Your task to perform on an android device: Open the calendar app, open the side menu, and click the "Day" option Image 0: 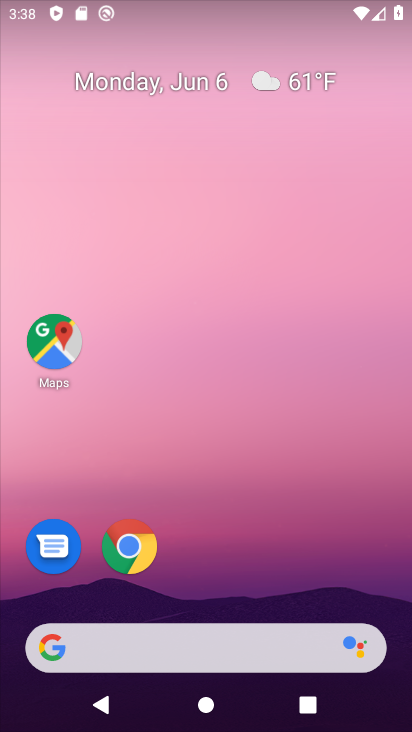
Step 0: drag from (228, 729) to (223, 102)
Your task to perform on an android device: Open the calendar app, open the side menu, and click the "Day" option Image 1: 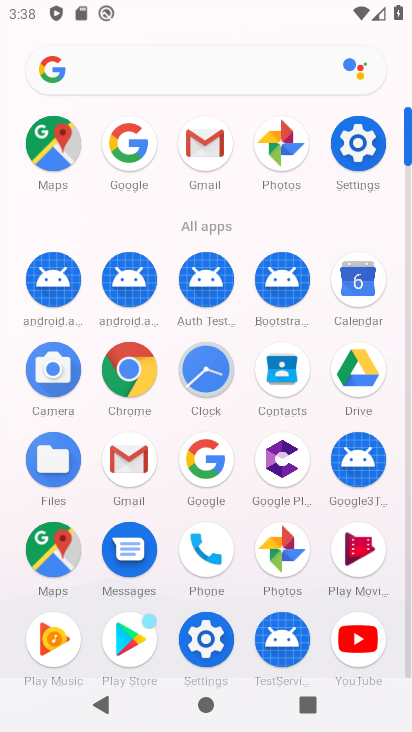
Step 1: click (358, 288)
Your task to perform on an android device: Open the calendar app, open the side menu, and click the "Day" option Image 2: 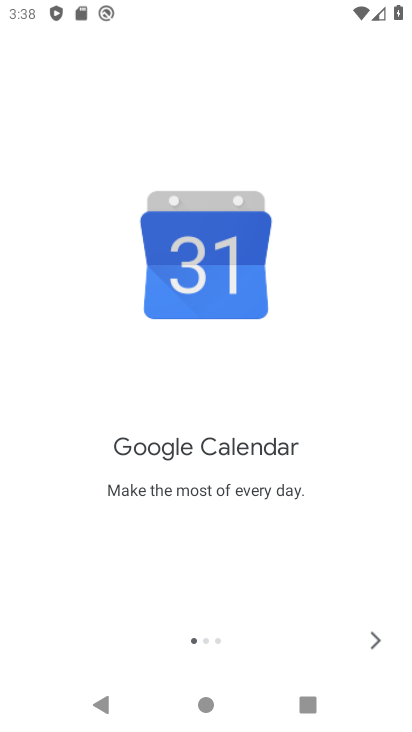
Step 2: click (379, 638)
Your task to perform on an android device: Open the calendar app, open the side menu, and click the "Day" option Image 3: 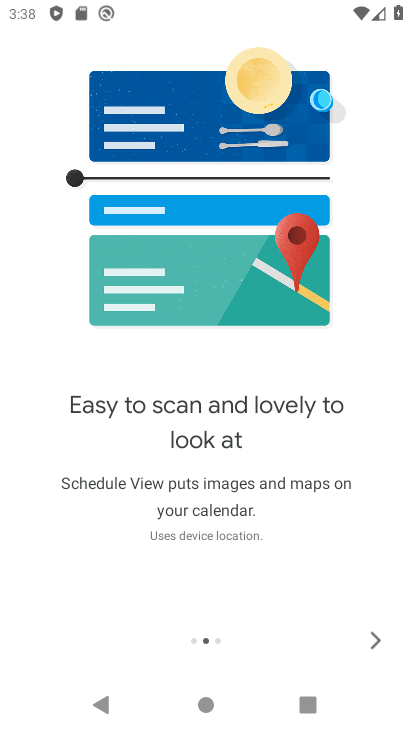
Step 3: click (379, 638)
Your task to perform on an android device: Open the calendar app, open the side menu, and click the "Day" option Image 4: 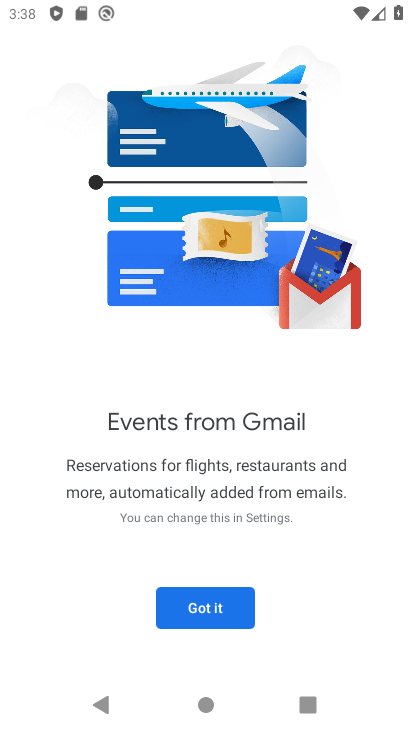
Step 4: click (218, 607)
Your task to perform on an android device: Open the calendar app, open the side menu, and click the "Day" option Image 5: 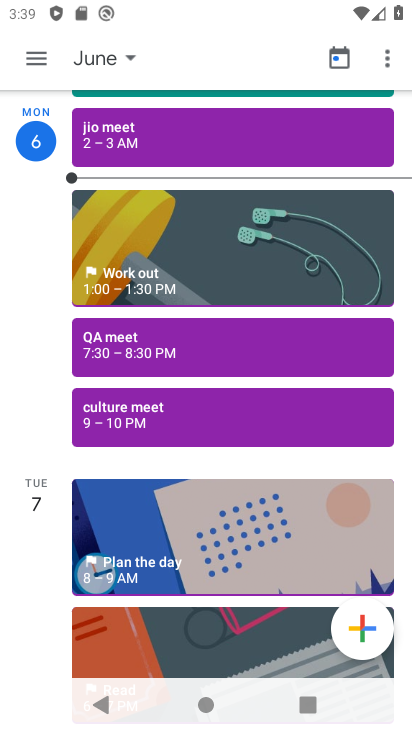
Step 5: click (37, 59)
Your task to perform on an android device: Open the calendar app, open the side menu, and click the "Day" option Image 6: 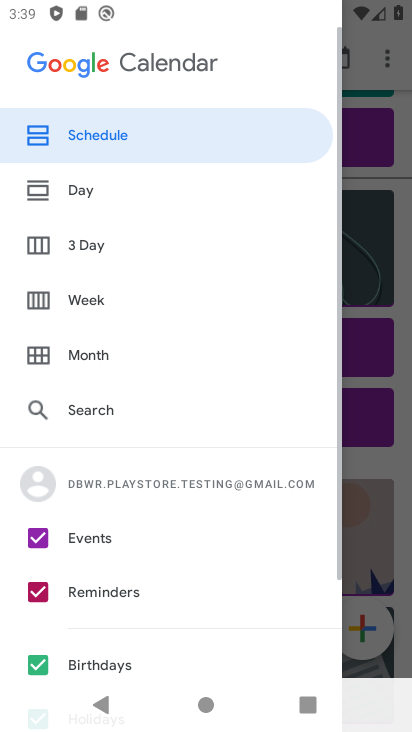
Step 6: click (75, 188)
Your task to perform on an android device: Open the calendar app, open the side menu, and click the "Day" option Image 7: 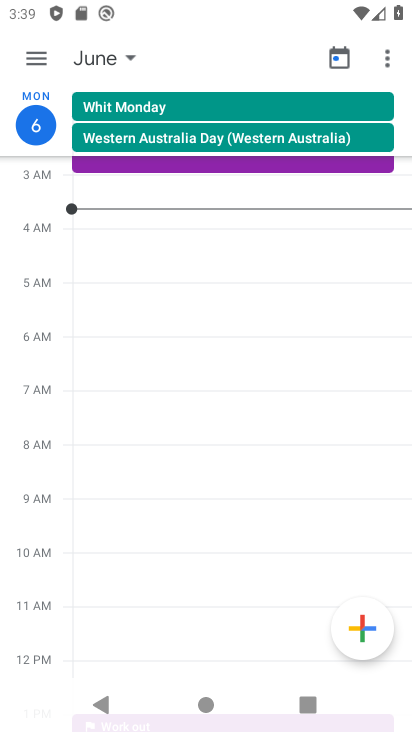
Step 7: task complete